Your task to perform on an android device: toggle pop-ups in chrome Image 0: 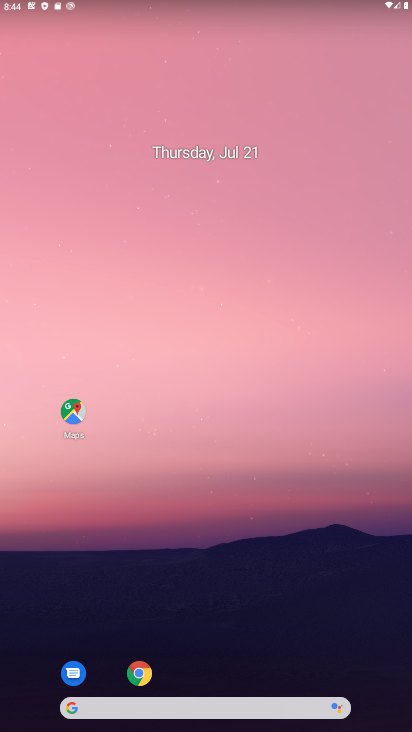
Step 0: drag from (246, 714) to (228, 34)
Your task to perform on an android device: toggle pop-ups in chrome Image 1: 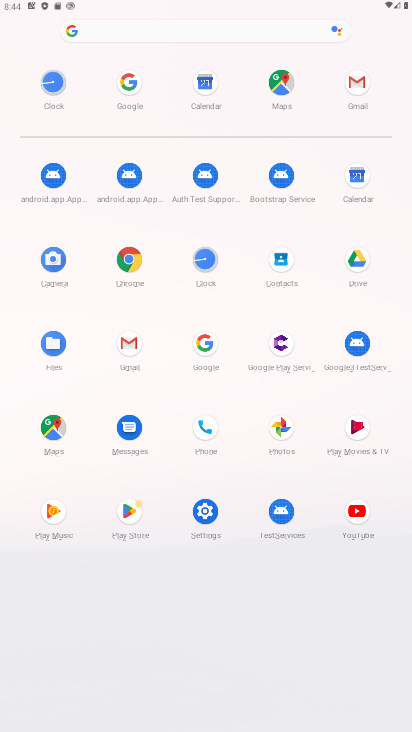
Step 1: click (130, 260)
Your task to perform on an android device: toggle pop-ups in chrome Image 2: 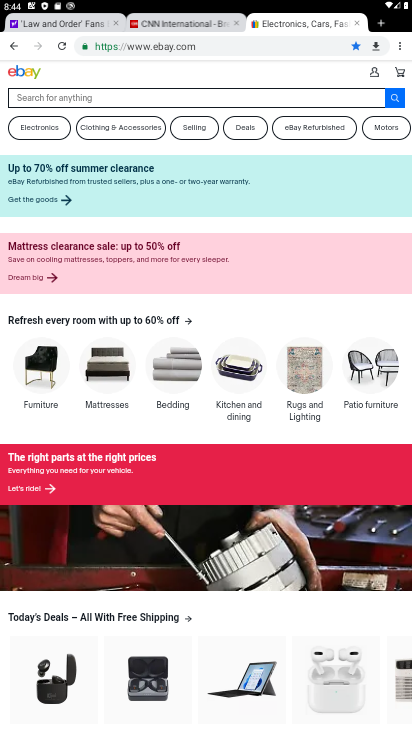
Step 2: click (399, 46)
Your task to perform on an android device: toggle pop-ups in chrome Image 3: 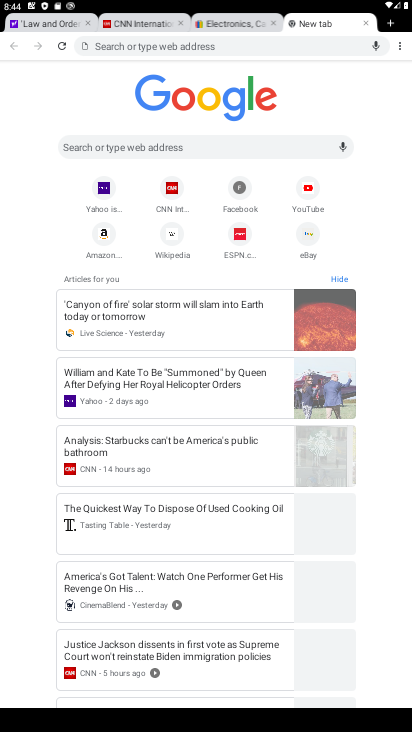
Step 3: click (400, 48)
Your task to perform on an android device: toggle pop-ups in chrome Image 4: 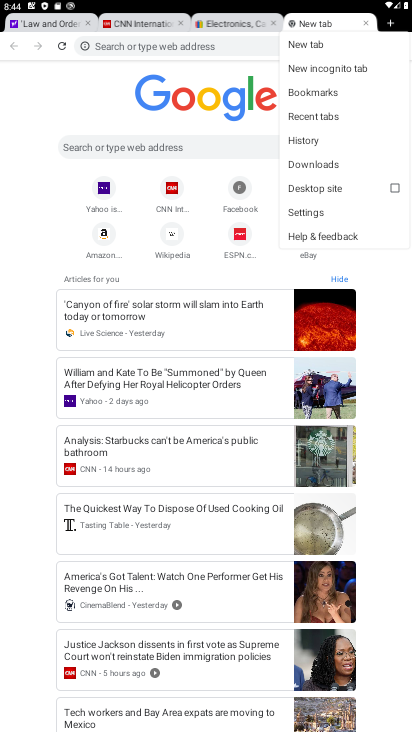
Step 4: click (310, 214)
Your task to perform on an android device: toggle pop-ups in chrome Image 5: 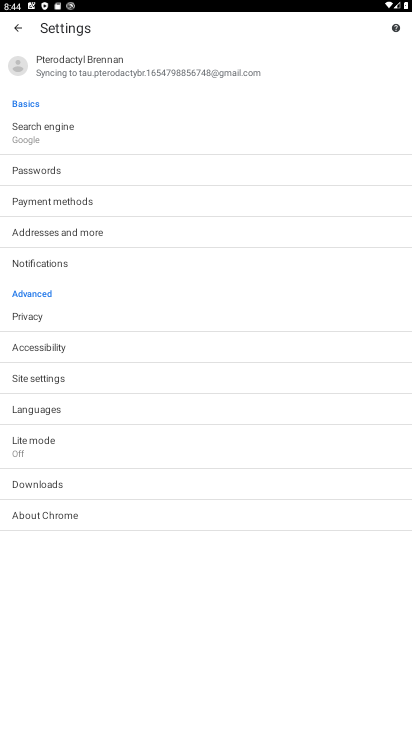
Step 5: click (47, 374)
Your task to perform on an android device: toggle pop-ups in chrome Image 6: 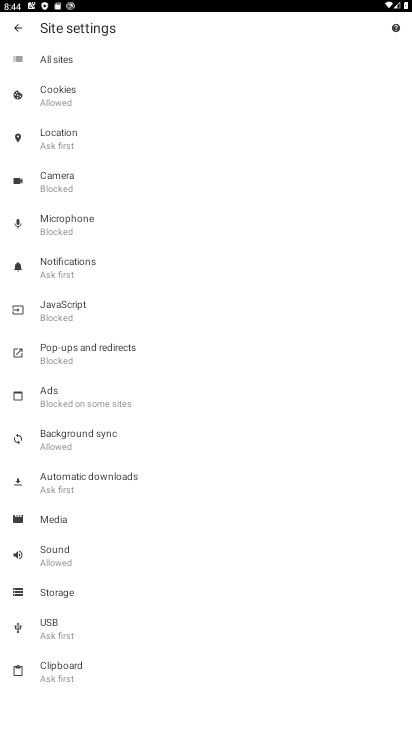
Step 6: click (68, 354)
Your task to perform on an android device: toggle pop-ups in chrome Image 7: 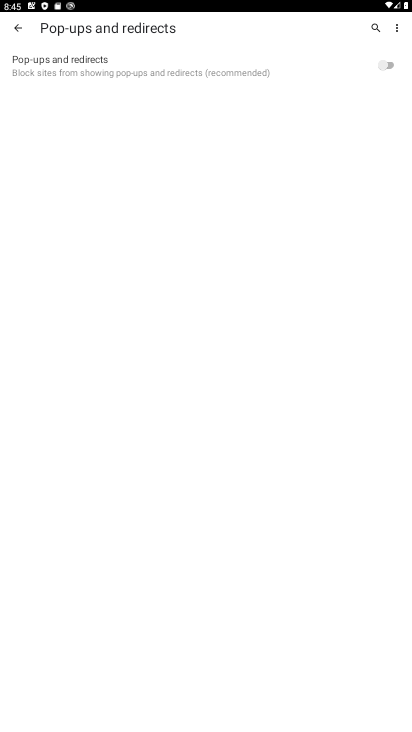
Step 7: click (393, 62)
Your task to perform on an android device: toggle pop-ups in chrome Image 8: 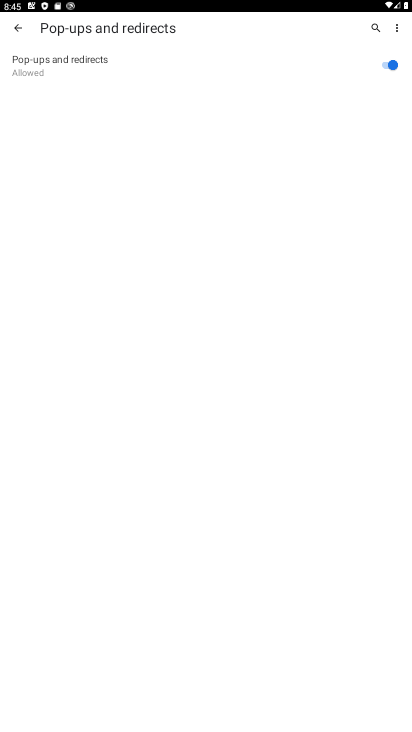
Step 8: task complete